Your task to perform on an android device: Open the stopwatch Image 0: 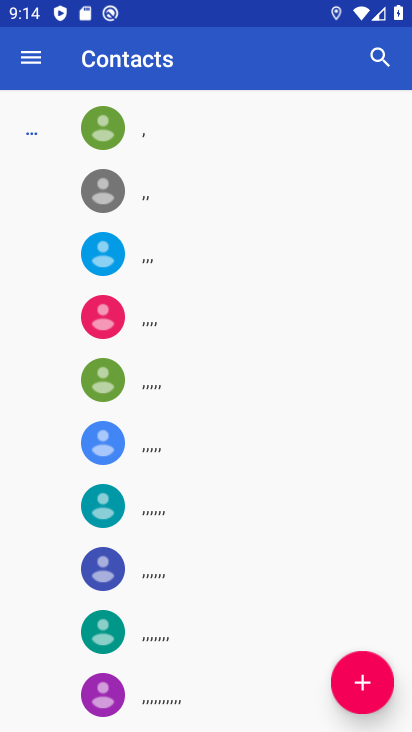
Step 0: press home button
Your task to perform on an android device: Open the stopwatch Image 1: 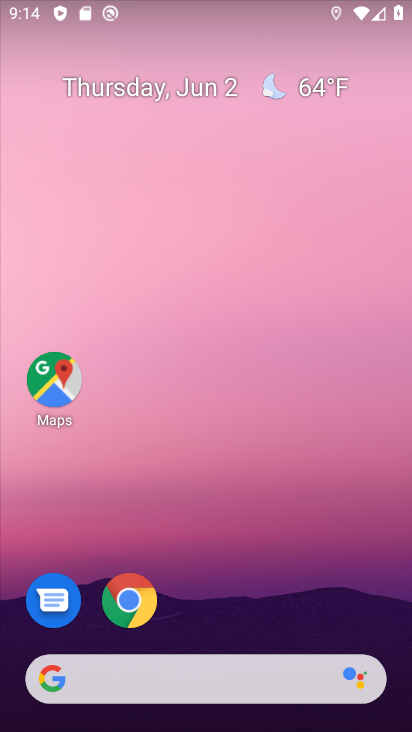
Step 1: drag from (234, 608) to (260, 32)
Your task to perform on an android device: Open the stopwatch Image 2: 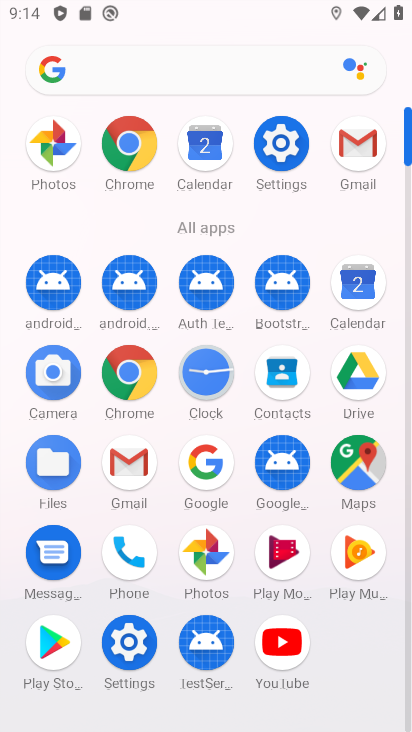
Step 2: click (212, 379)
Your task to perform on an android device: Open the stopwatch Image 3: 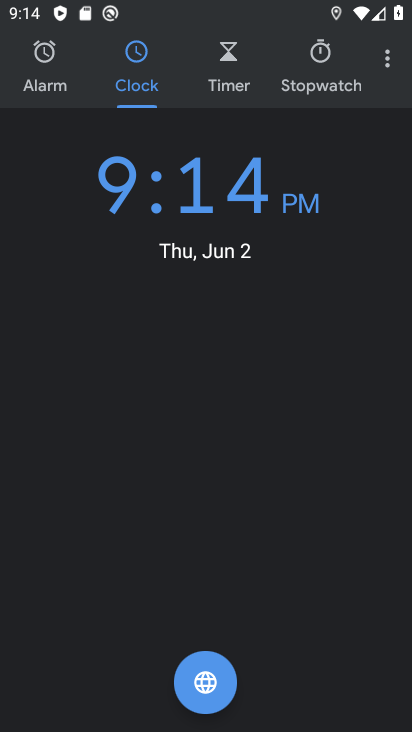
Step 3: click (302, 68)
Your task to perform on an android device: Open the stopwatch Image 4: 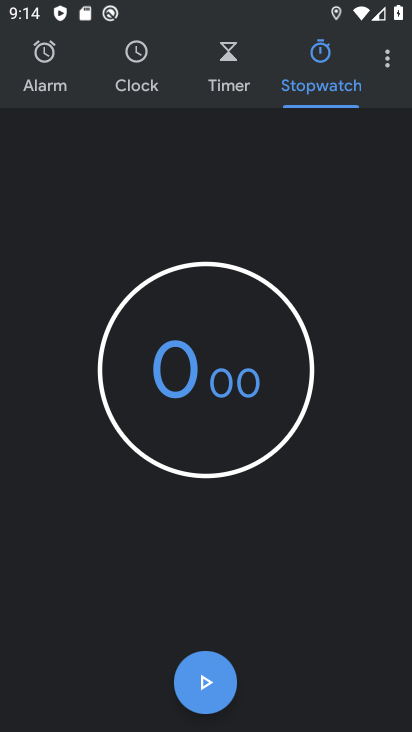
Step 4: click (199, 692)
Your task to perform on an android device: Open the stopwatch Image 5: 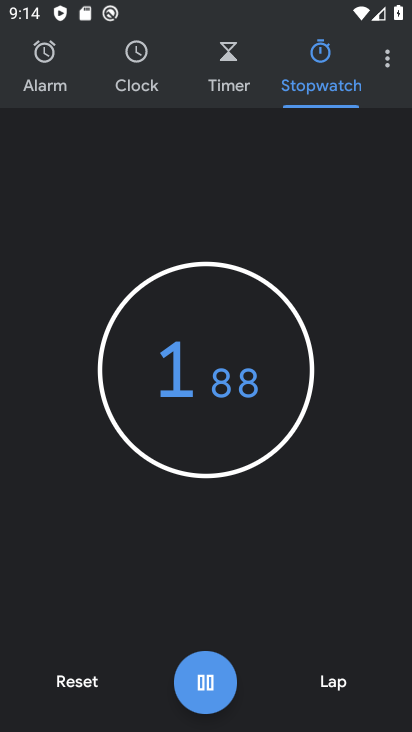
Step 5: task complete